Your task to perform on an android device: What's on the menu at Chick-fil-A? Image 0: 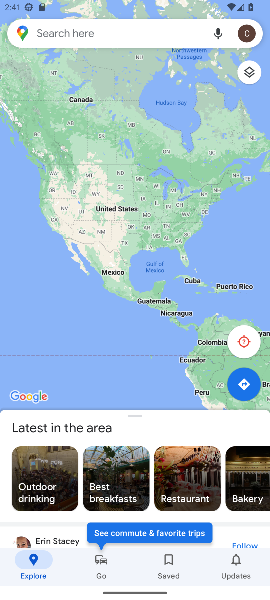
Step 0: press home button
Your task to perform on an android device: What's on the menu at Chick-fil-A? Image 1: 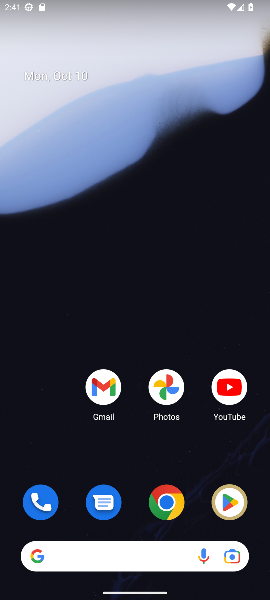
Step 1: click (166, 499)
Your task to perform on an android device: What's on the menu at Chick-fil-A? Image 2: 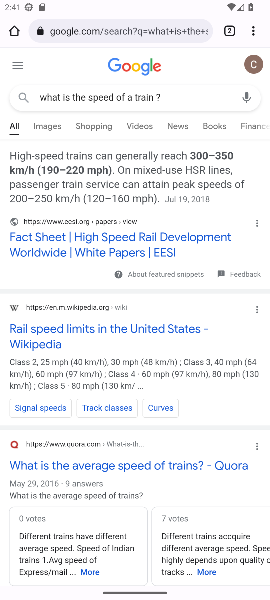
Step 2: click (153, 25)
Your task to perform on an android device: What's on the menu at Chick-fil-A? Image 3: 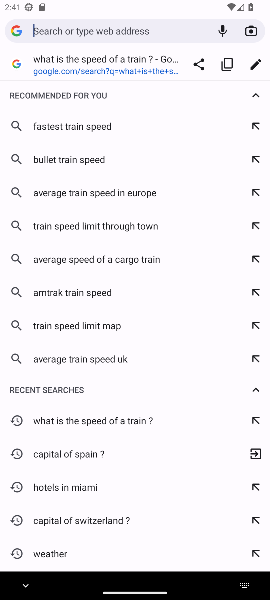
Step 3: type "What's on the menu at Chick-fil-A?"
Your task to perform on an android device: What's on the menu at Chick-fil-A? Image 4: 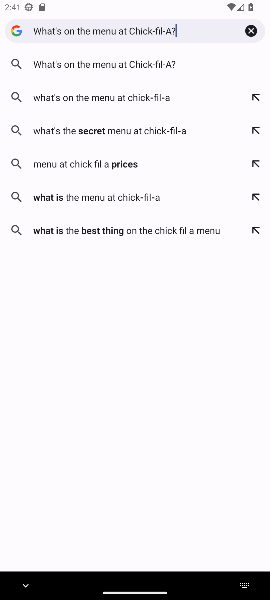
Step 4: click (148, 61)
Your task to perform on an android device: What's on the menu at Chick-fil-A? Image 5: 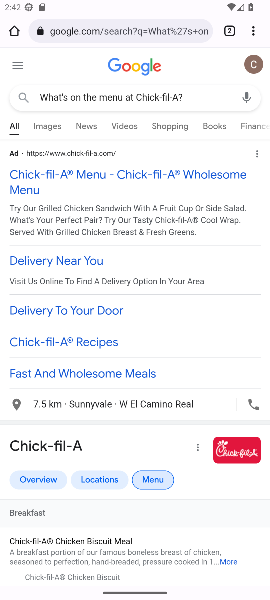
Step 5: click (90, 182)
Your task to perform on an android device: What's on the menu at Chick-fil-A? Image 6: 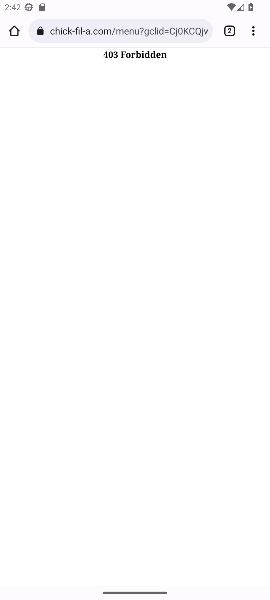
Step 6: task complete